Your task to perform on an android device: check data usage Image 0: 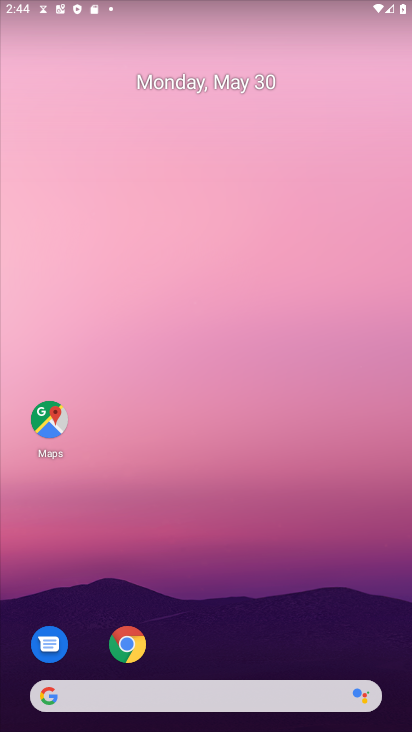
Step 0: press home button
Your task to perform on an android device: check data usage Image 1: 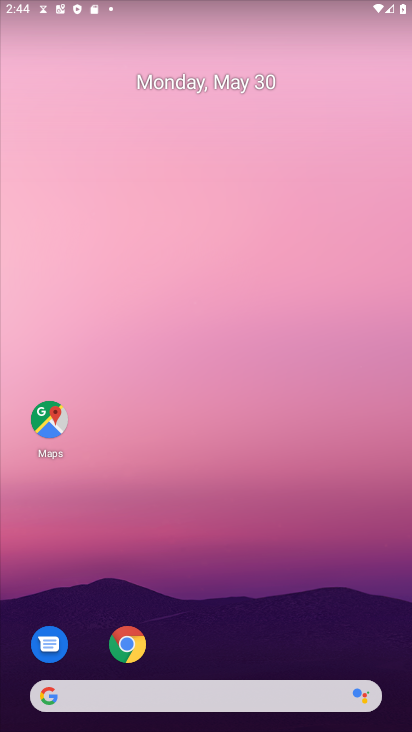
Step 1: drag from (323, 604) to (317, 133)
Your task to perform on an android device: check data usage Image 2: 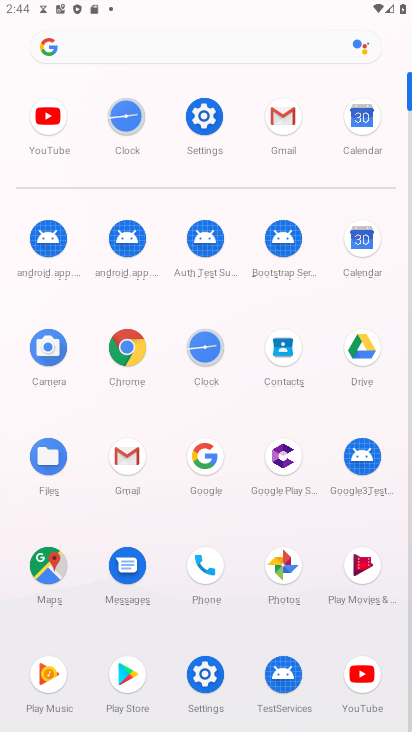
Step 2: click (206, 114)
Your task to perform on an android device: check data usage Image 3: 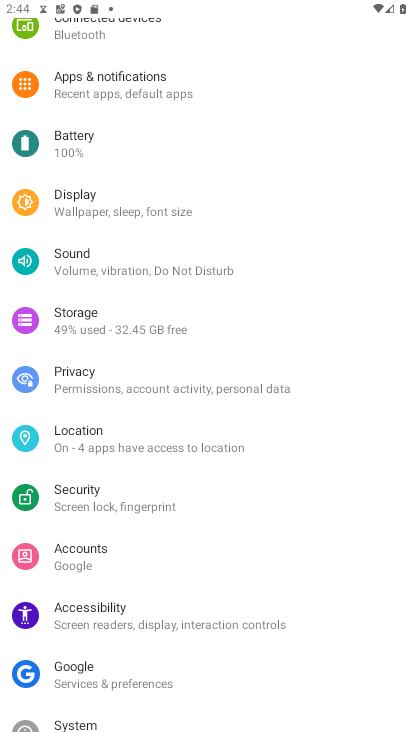
Step 3: drag from (319, 56) to (266, 410)
Your task to perform on an android device: check data usage Image 4: 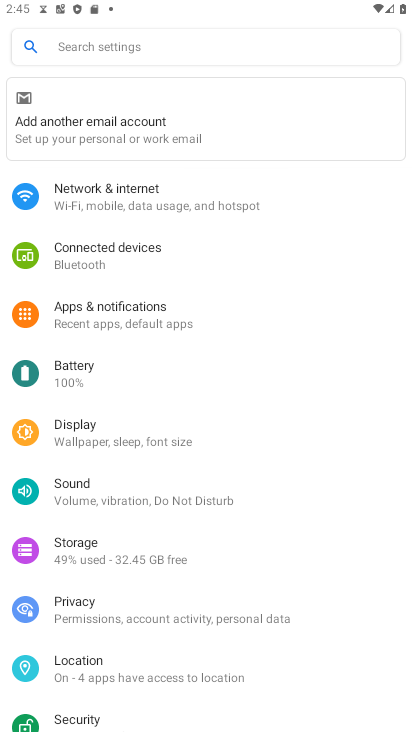
Step 4: click (183, 207)
Your task to perform on an android device: check data usage Image 5: 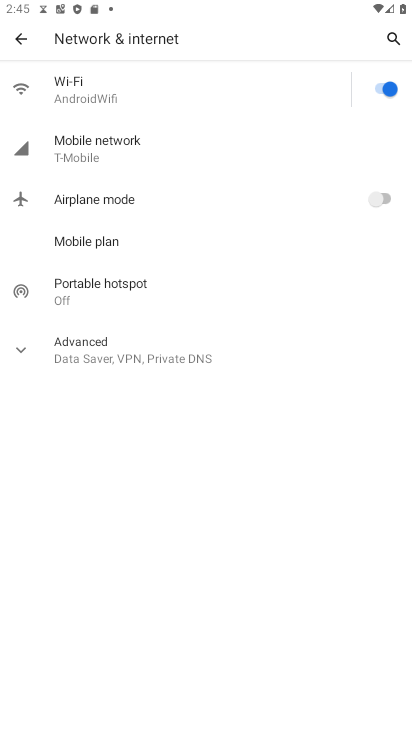
Step 5: click (131, 152)
Your task to perform on an android device: check data usage Image 6: 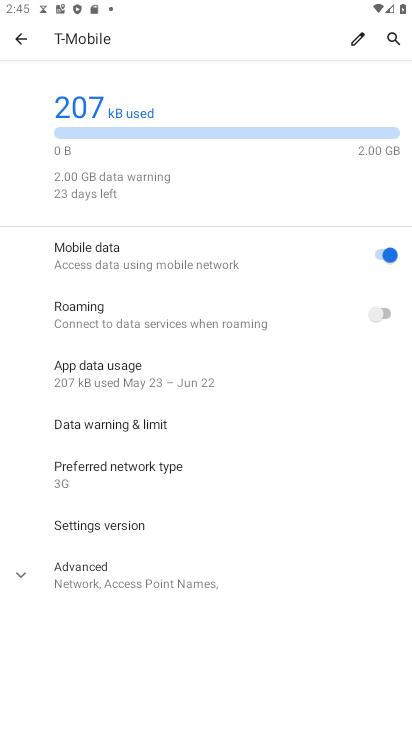
Step 6: task complete